Your task to perform on an android device: Search for "energizer triple a" on costco.com, select the first entry, and add it to the cart. Image 0: 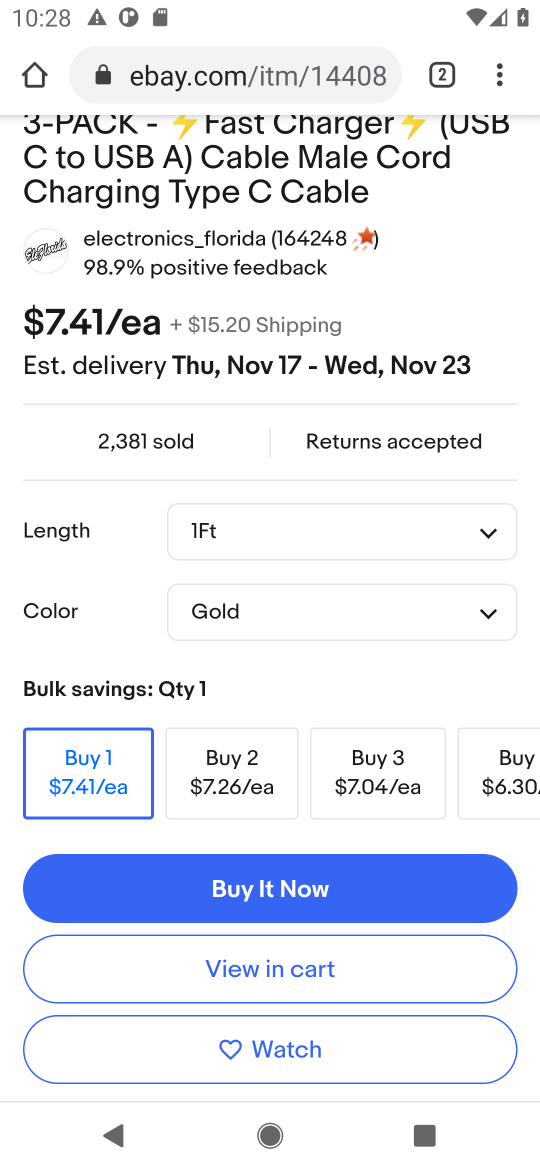
Step 0: press home button
Your task to perform on an android device: Search for "energizer triple a" on costco.com, select the first entry, and add it to the cart. Image 1: 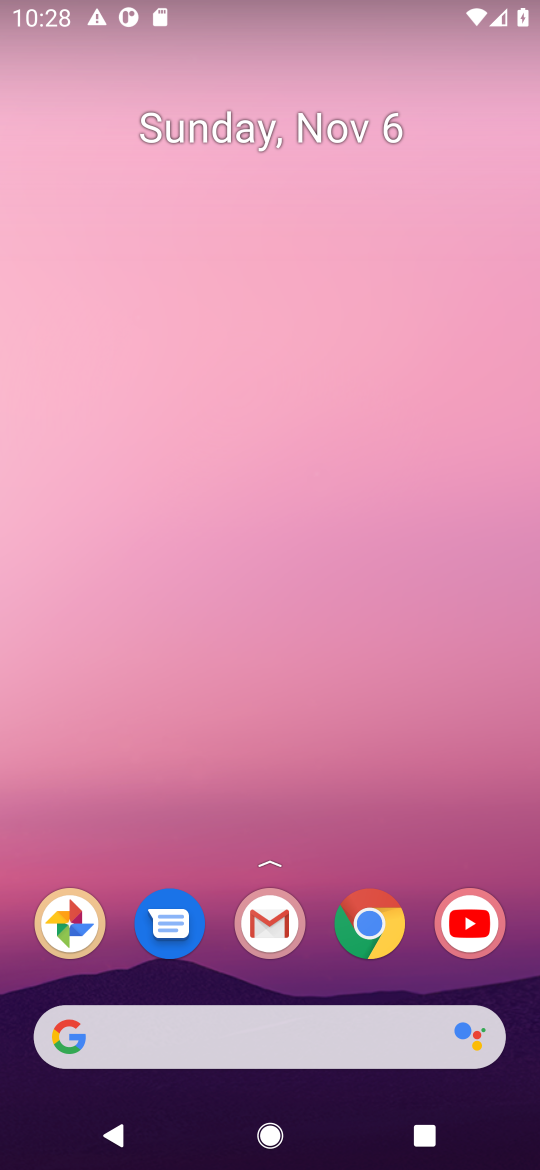
Step 1: click (361, 915)
Your task to perform on an android device: Search for "energizer triple a" on costco.com, select the first entry, and add it to the cart. Image 2: 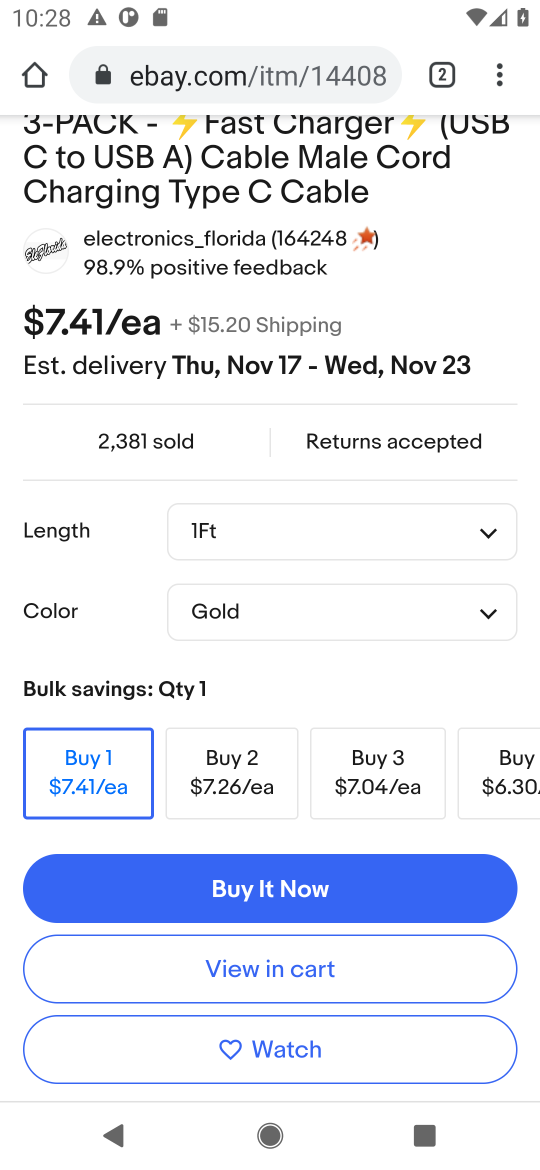
Step 2: click (238, 83)
Your task to perform on an android device: Search for "energizer triple a" on costco.com, select the first entry, and add it to the cart. Image 3: 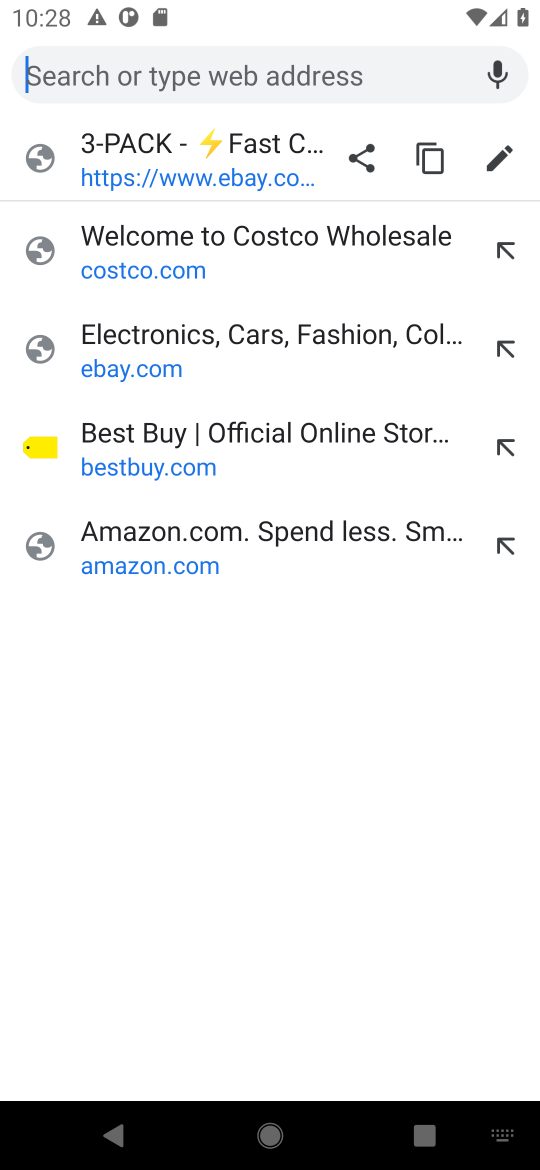
Step 3: click (141, 283)
Your task to perform on an android device: Search for "energizer triple a" on costco.com, select the first entry, and add it to the cart. Image 4: 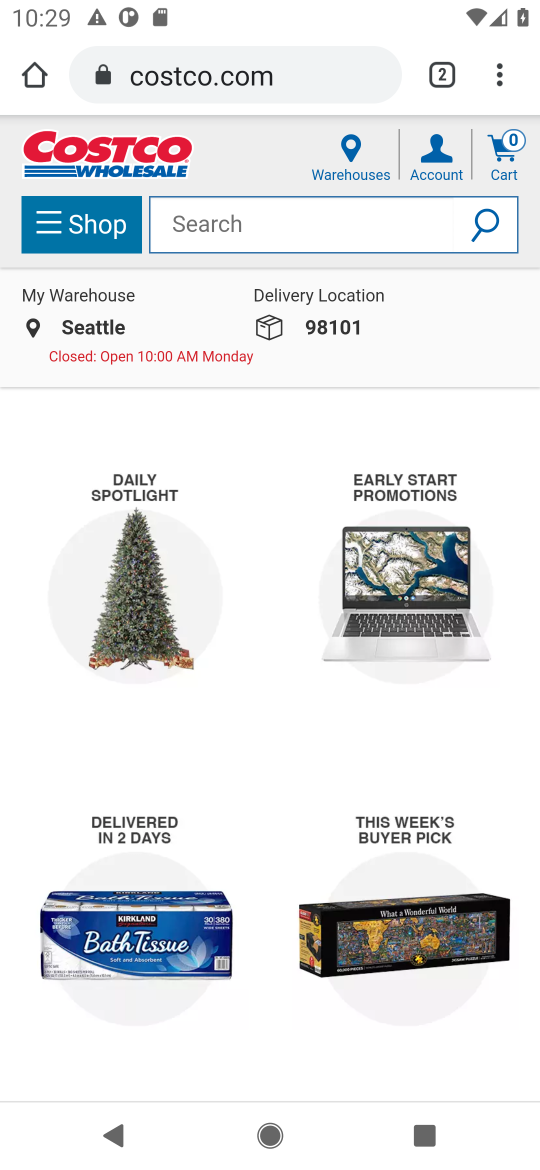
Step 4: click (243, 242)
Your task to perform on an android device: Search for "energizer triple a" on costco.com, select the first entry, and add it to the cart. Image 5: 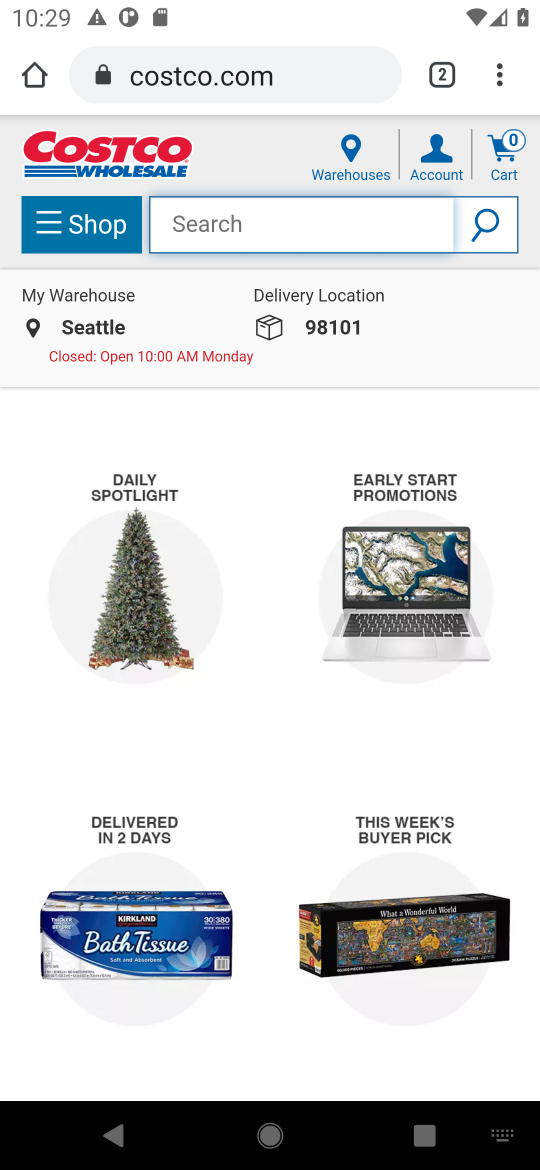
Step 5: type "energizer triple a"
Your task to perform on an android device: Search for "energizer triple a" on costco.com, select the first entry, and add it to the cart. Image 6: 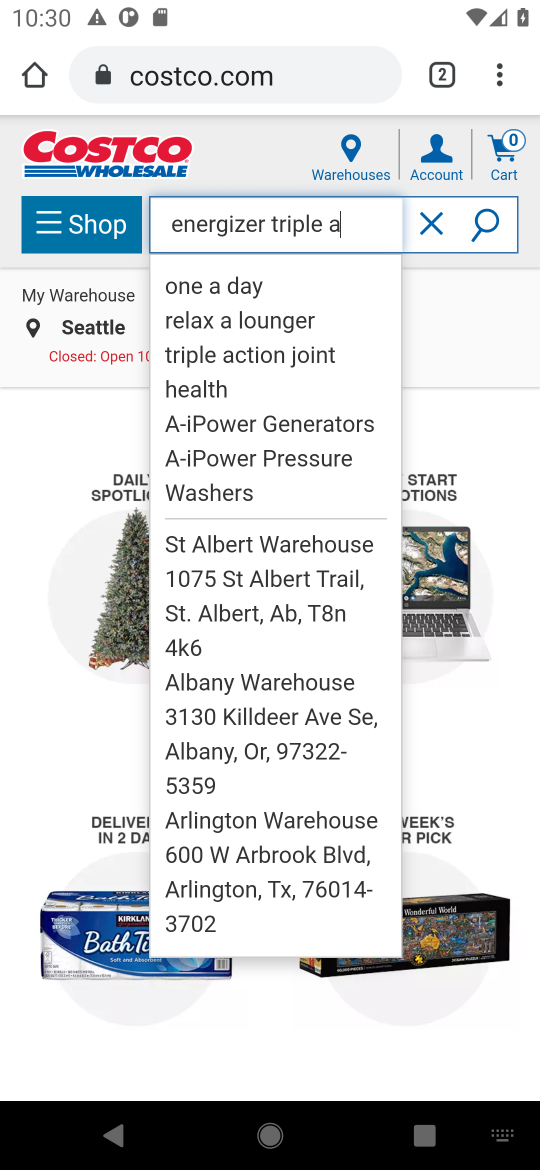
Step 6: click (485, 224)
Your task to perform on an android device: Search for "energizer triple a" on costco.com, select the first entry, and add it to the cart. Image 7: 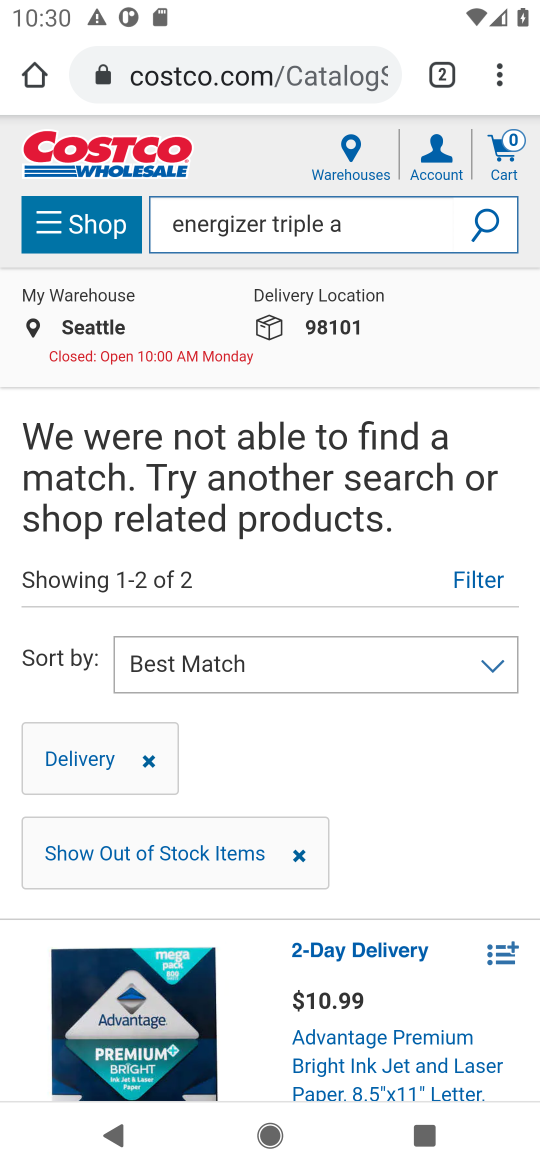
Step 7: task complete